Your task to perform on an android device: clear all cookies in the chrome app Image 0: 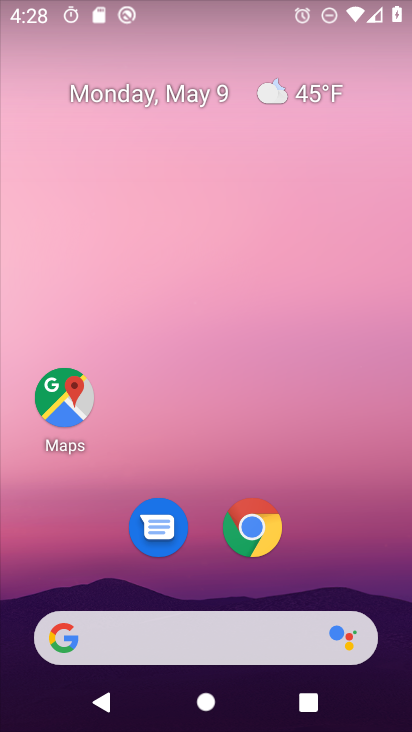
Step 0: click (271, 530)
Your task to perform on an android device: clear all cookies in the chrome app Image 1: 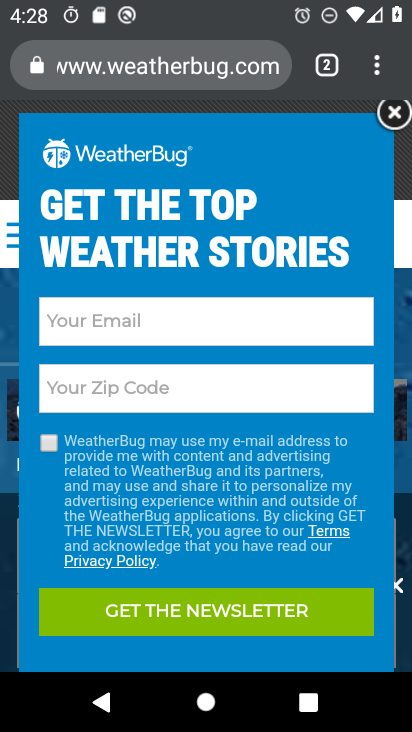
Step 1: drag from (371, 74) to (305, 320)
Your task to perform on an android device: clear all cookies in the chrome app Image 2: 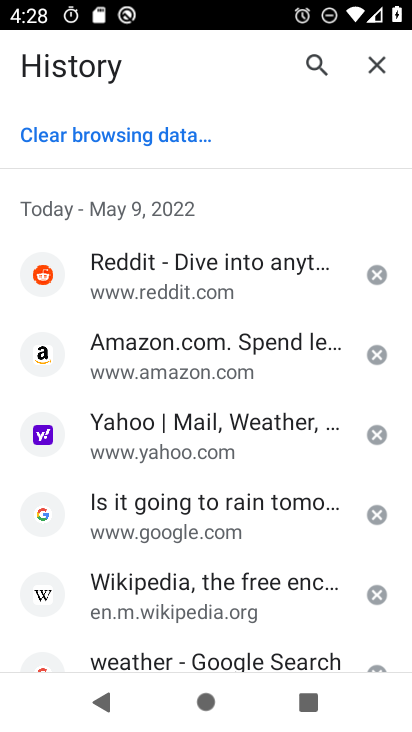
Step 2: click (163, 123)
Your task to perform on an android device: clear all cookies in the chrome app Image 3: 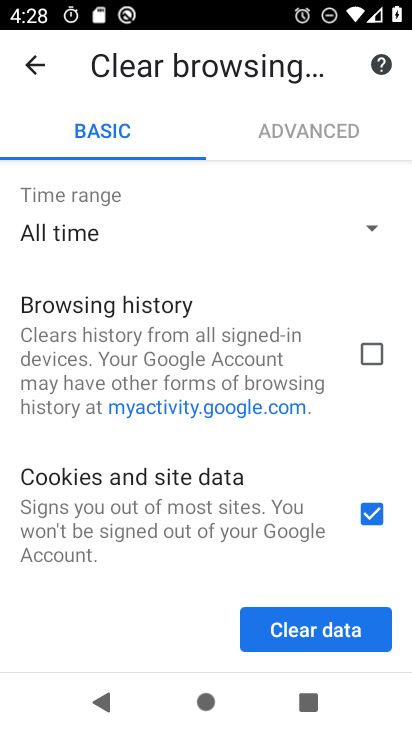
Step 3: click (360, 628)
Your task to perform on an android device: clear all cookies in the chrome app Image 4: 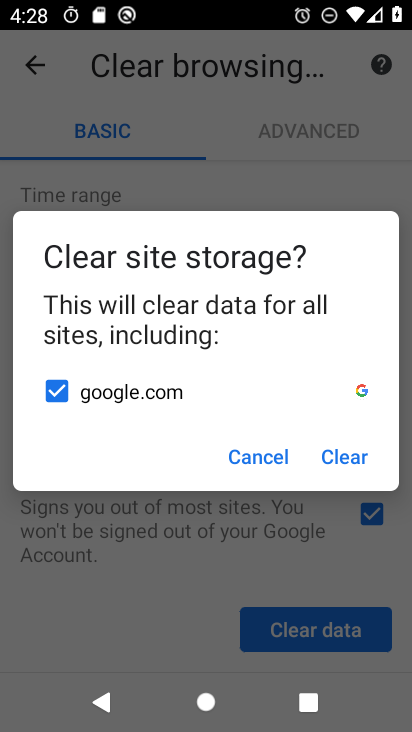
Step 4: click (344, 455)
Your task to perform on an android device: clear all cookies in the chrome app Image 5: 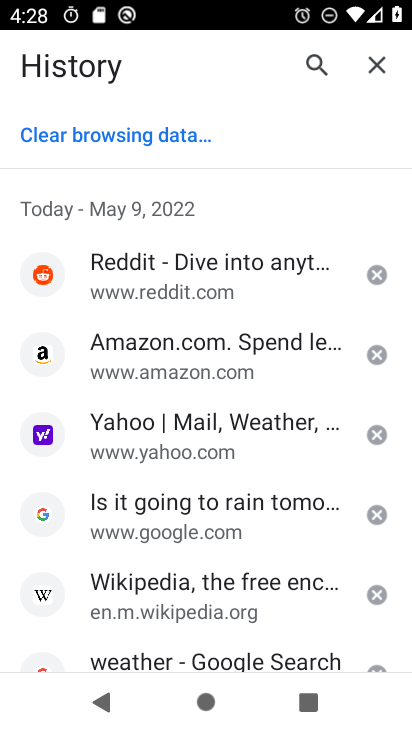
Step 5: task complete